Your task to perform on an android device: Open the stopwatch Image 0: 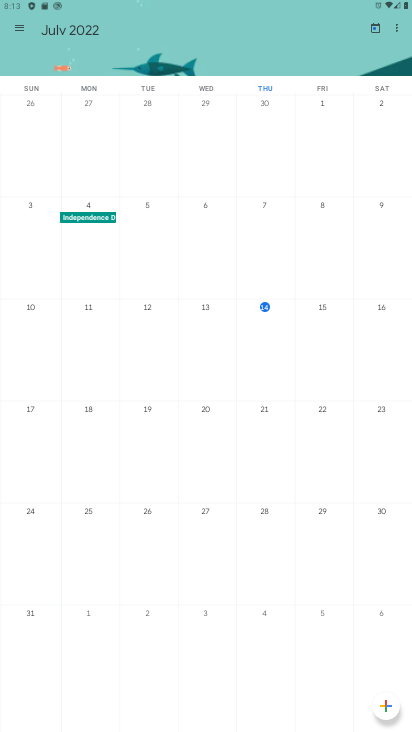
Step 0: press home button
Your task to perform on an android device: Open the stopwatch Image 1: 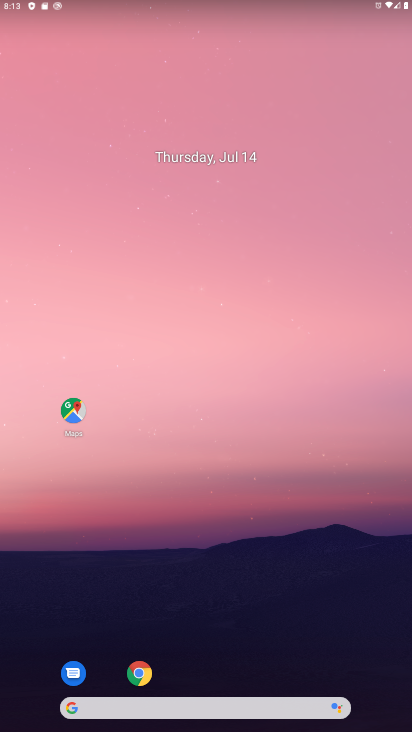
Step 1: drag from (220, 707) to (268, 229)
Your task to perform on an android device: Open the stopwatch Image 2: 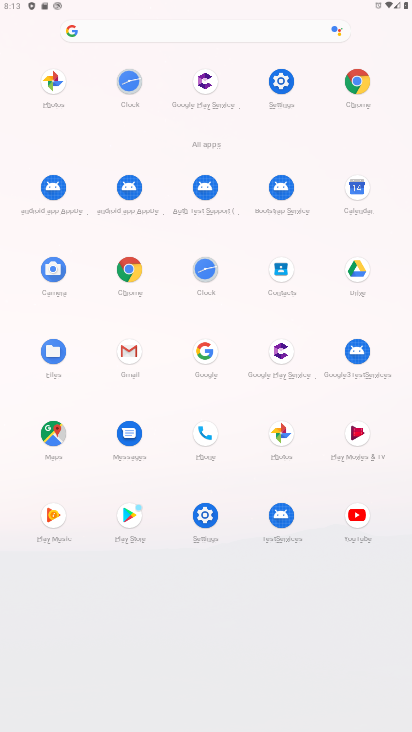
Step 2: click (206, 271)
Your task to perform on an android device: Open the stopwatch Image 3: 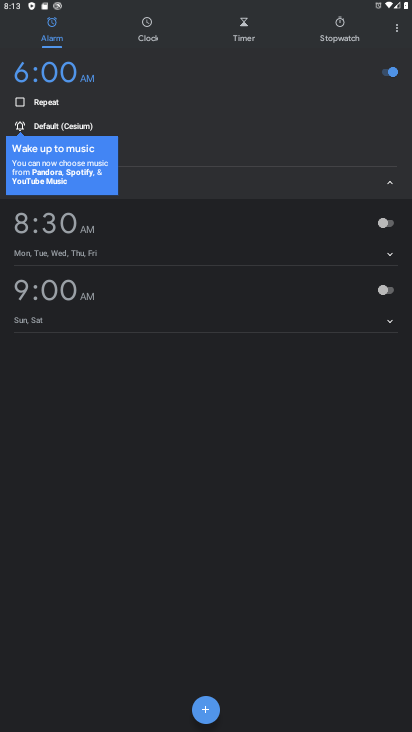
Step 3: click (340, 26)
Your task to perform on an android device: Open the stopwatch Image 4: 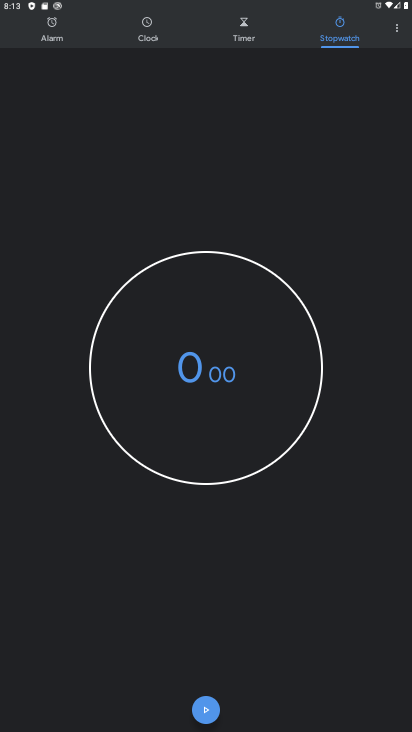
Step 4: task complete